Your task to perform on an android device: Open Google Image 0: 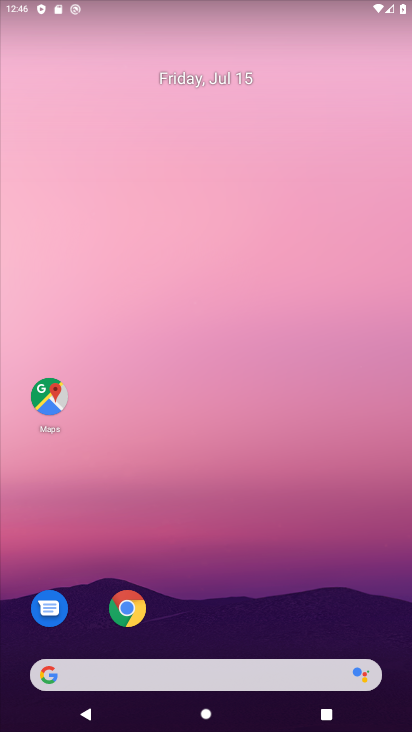
Step 0: drag from (311, 597) to (296, 35)
Your task to perform on an android device: Open Google Image 1: 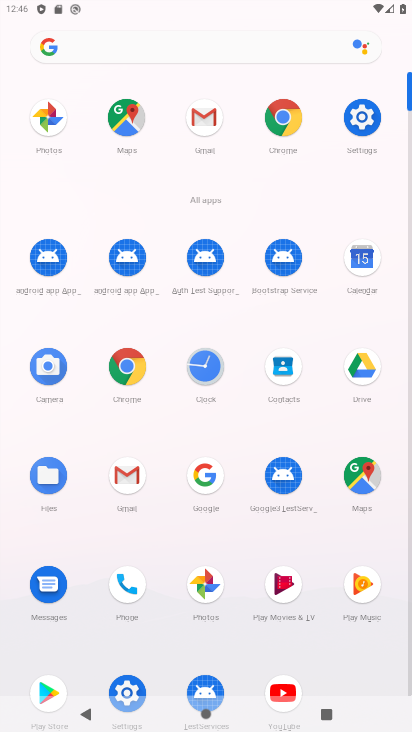
Step 1: click (208, 474)
Your task to perform on an android device: Open Google Image 2: 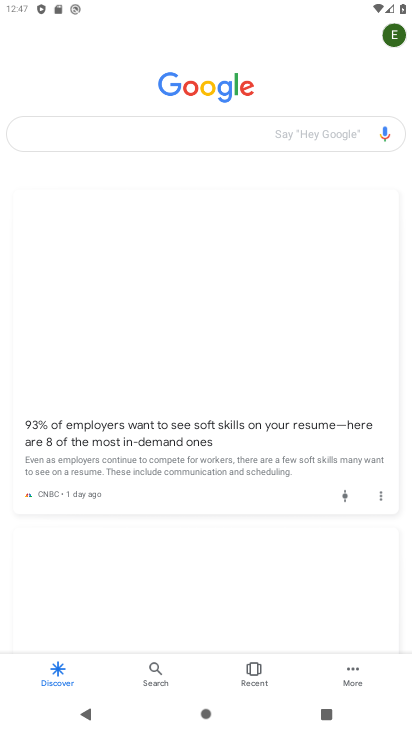
Step 2: task complete